Your task to perform on an android device: open device folders in google photos Image 0: 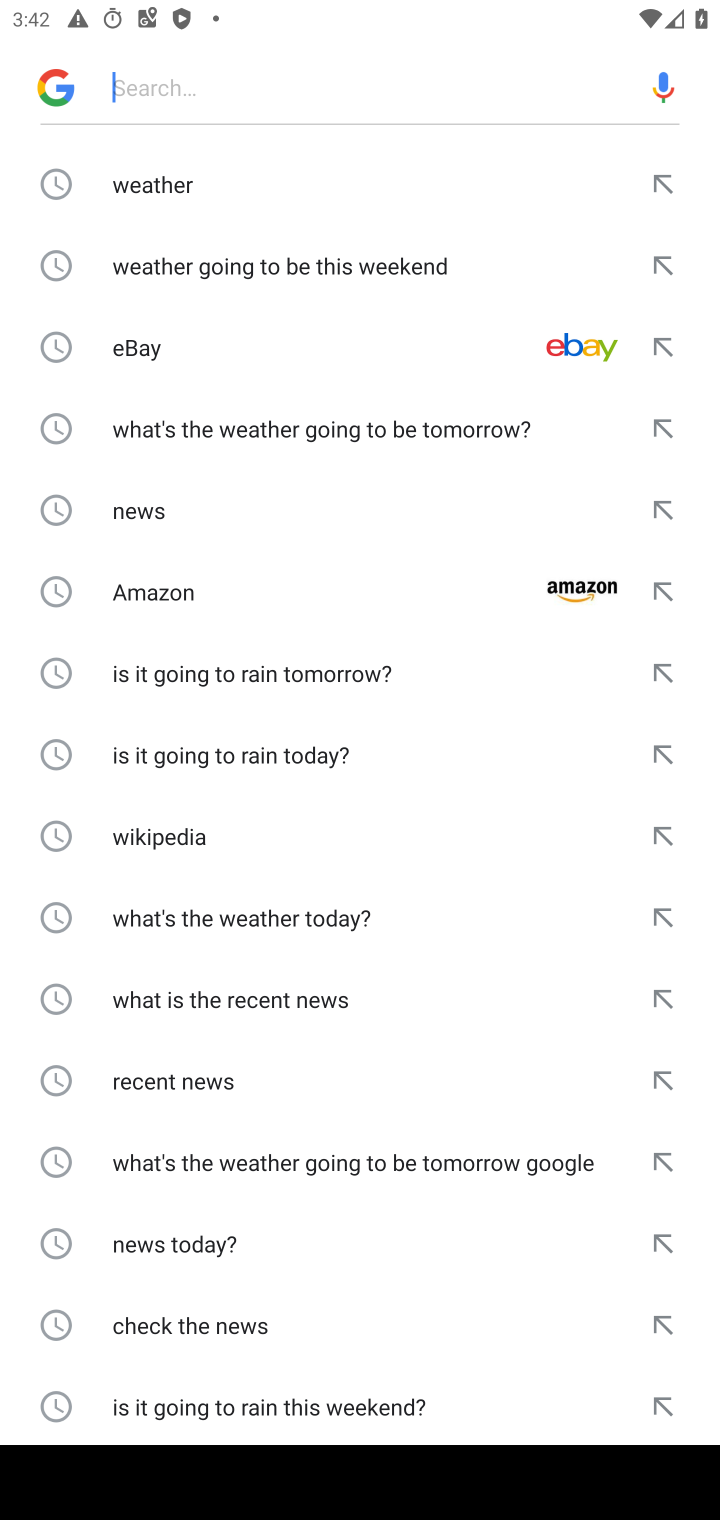
Step 0: press home button
Your task to perform on an android device: open device folders in google photos Image 1: 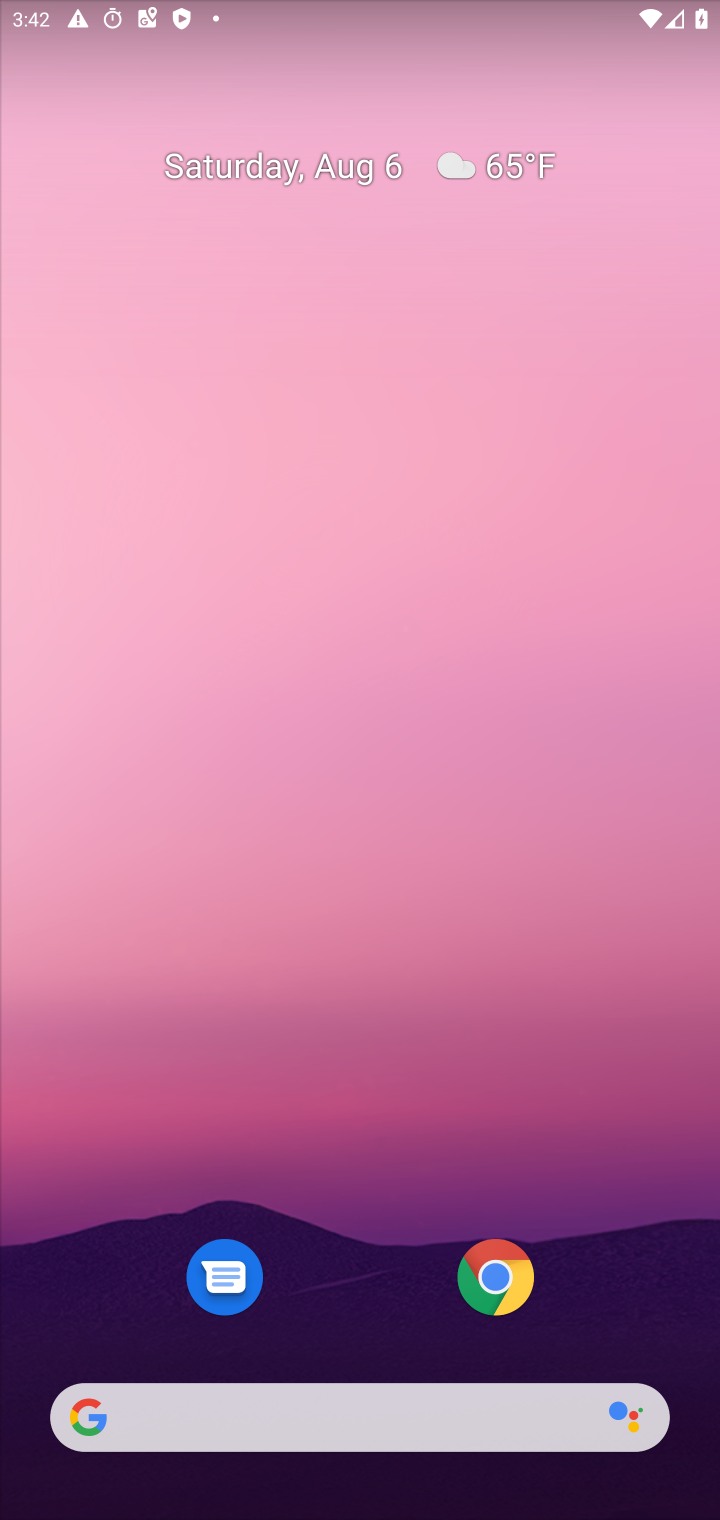
Step 1: drag from (425, 1397) to (440, 93)
Your task to perform on an android device: open device folders in google photos Image 2: 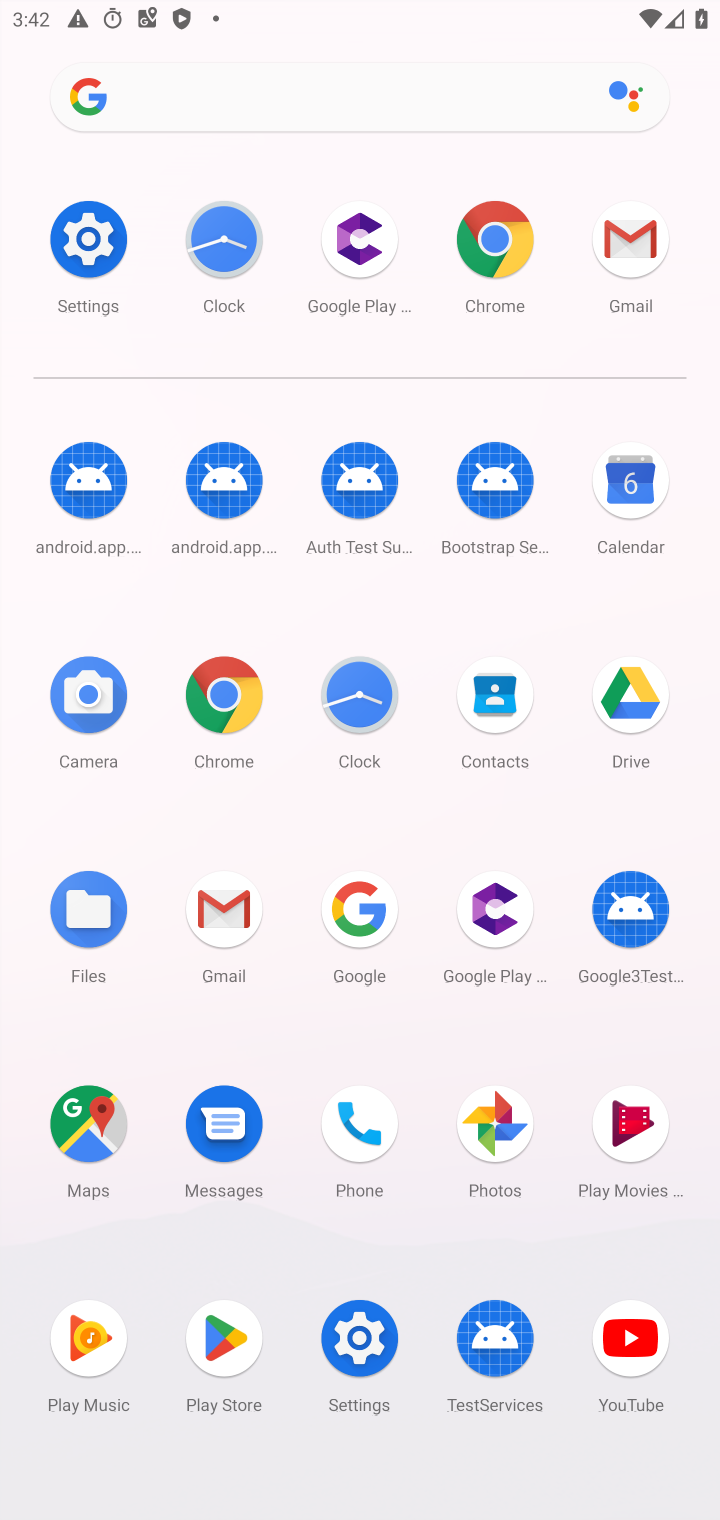
Step 2: click (484, 1148)
Your task to perform on an android device: open device folders in google photos Image 3: 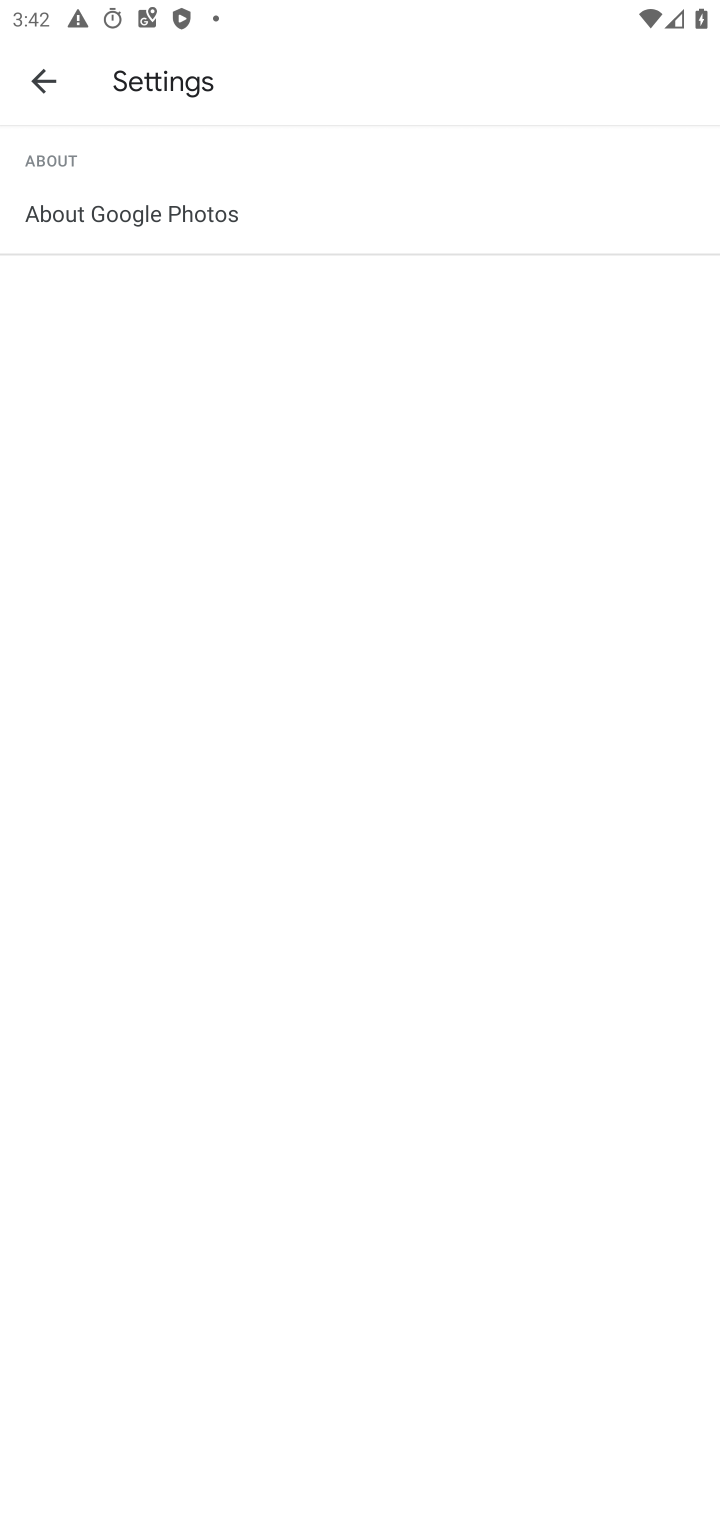
Step 3: press back button
Your task to perform on an android device: open device folders in google photos Image 4: 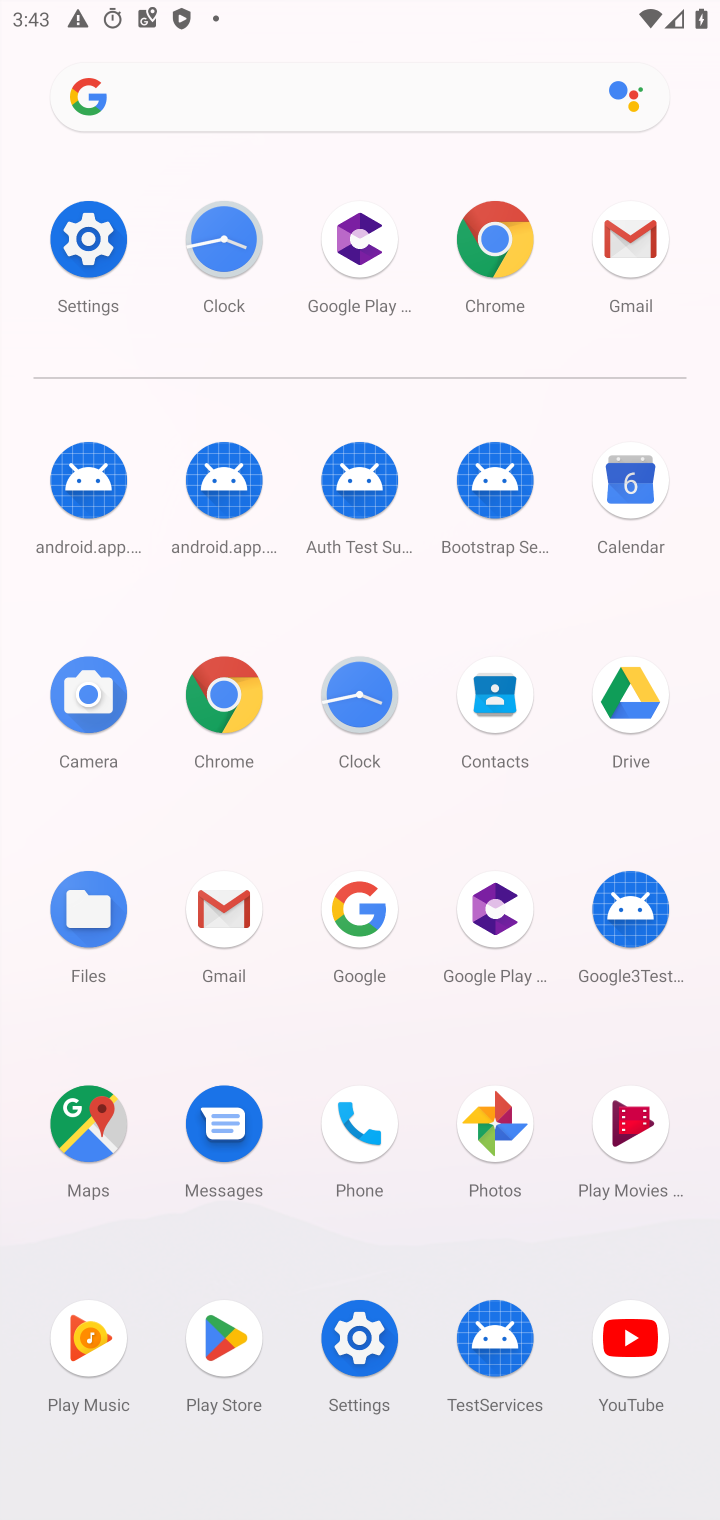
Step 4: click (506, 1131)
Your task to perform on an android device: open device folders in google photos Image 5: 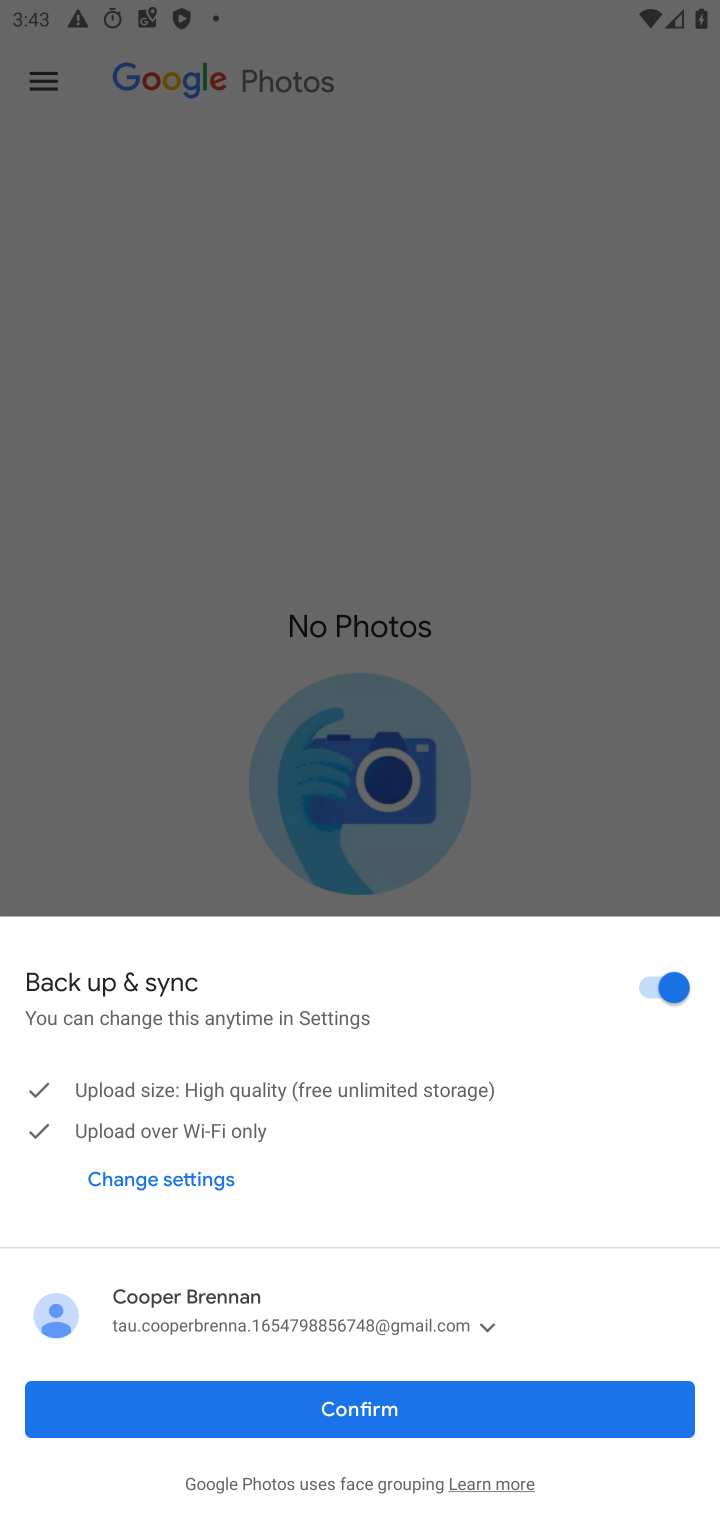
Step 5: click (431, 1396)
Your task to perform on an android device: open device folders in google photos Image 6: 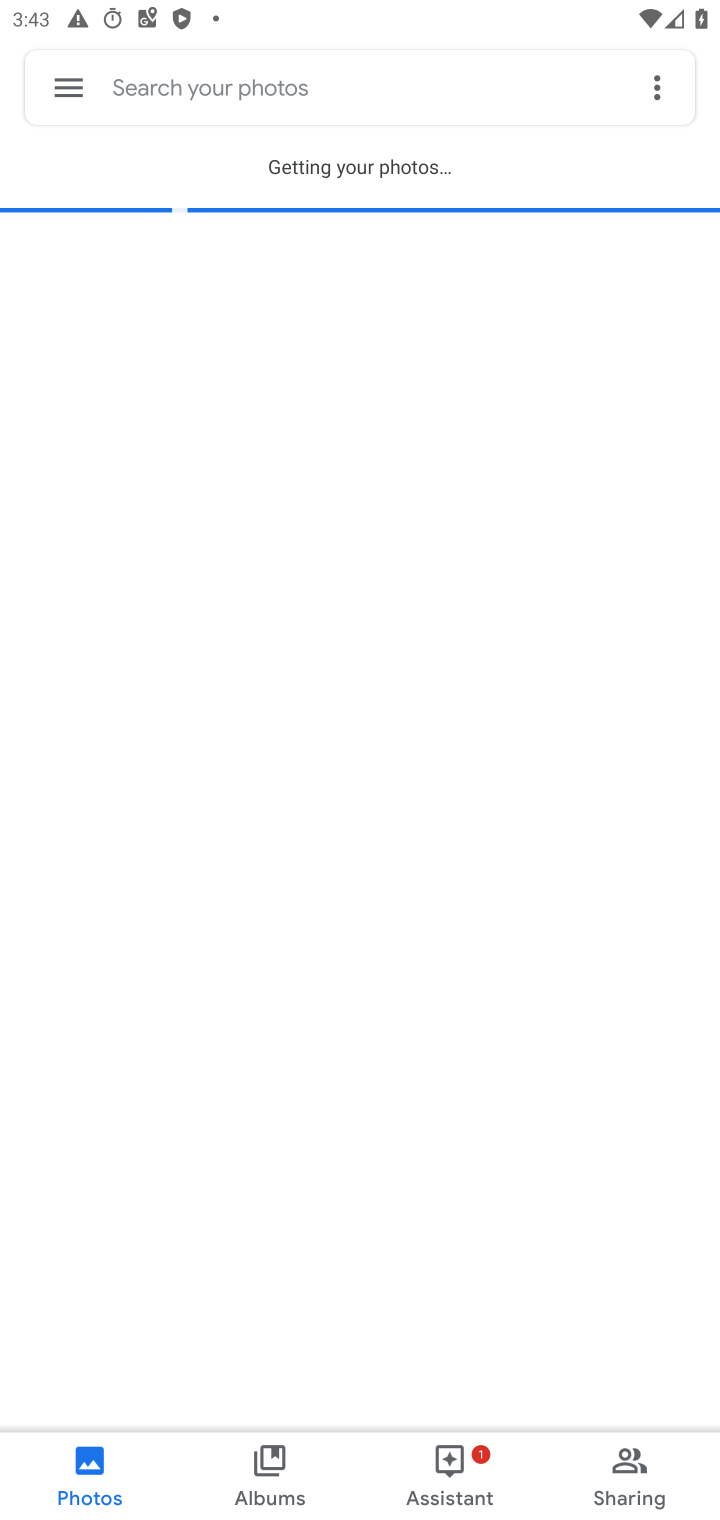
Step 6: click (60, 74)
Your task to perform on an android device: open device folders in google photos Image 7: 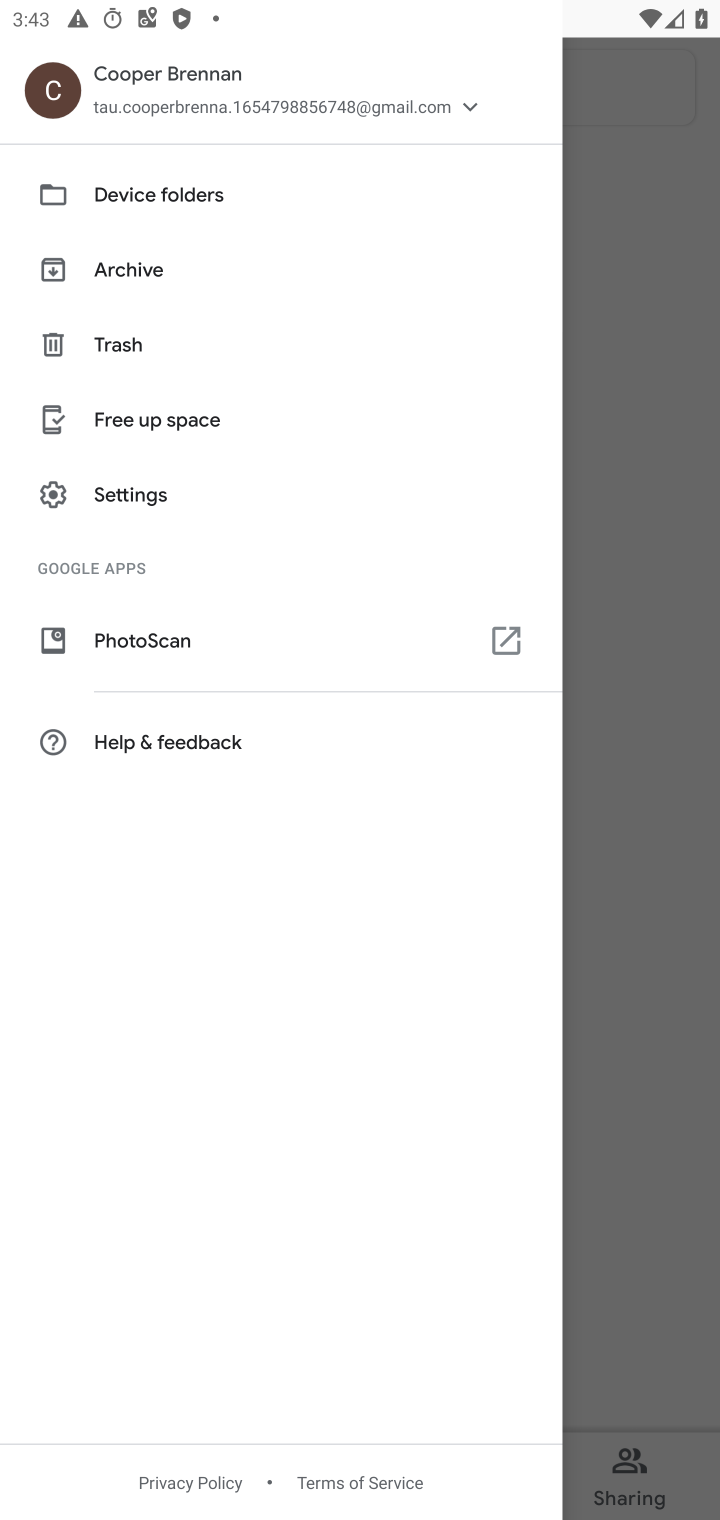
Step 7: click (187, 195)
Your task to perform on an android device: open device folders in google photos Image 8: 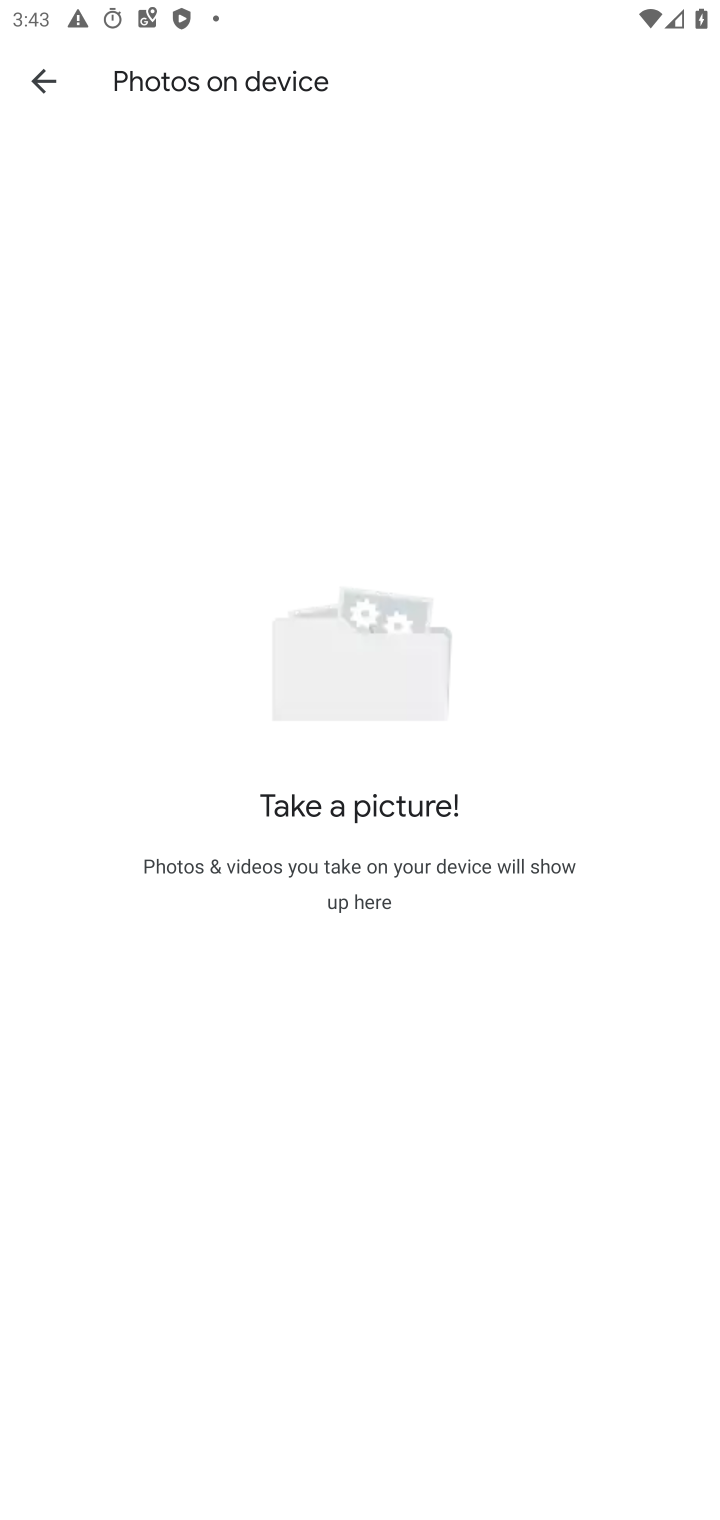
Step 8: task complete